Your task to perform on an android device: allow notifications from all sites in the chrome app Image 0: 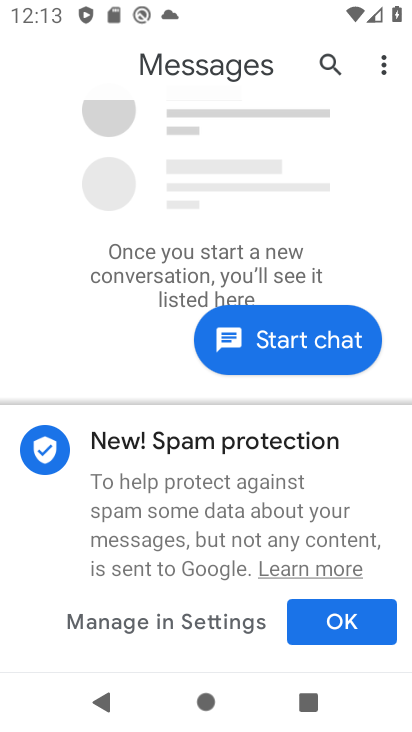
Step 0: press home button
Your task to perform on an android device: allow notifications from all sites in the chrome app Image 1: 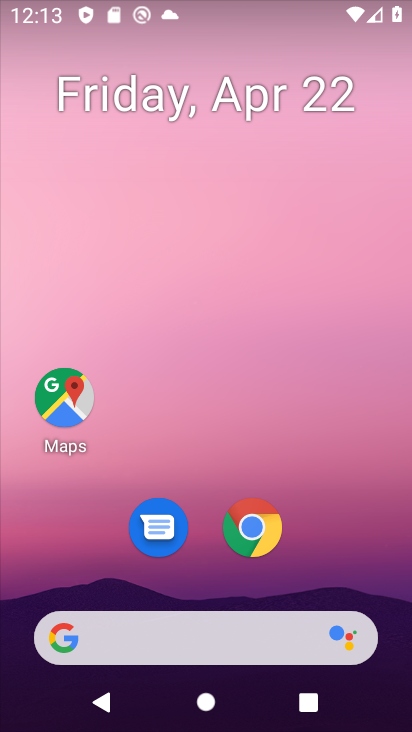
Step 1: click (264, 525)
Your task to perform on an android device: allow notifications from all sites in the chrome app Image 2: 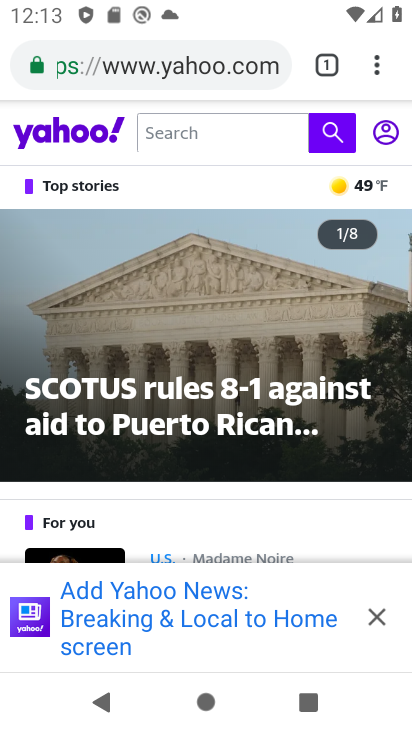
Step 2: click (373, 69)
Your task to perform on an android device: allow notifications from all sites in the chrome app Image 3: 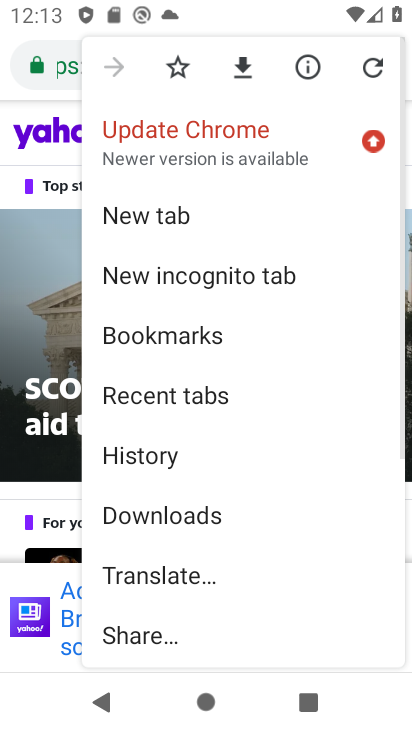
Step 3: drag from (237, 542) to (260, 244)
Your task to perform on an android device: allow notifications from all sites in the chrome app Image 4: 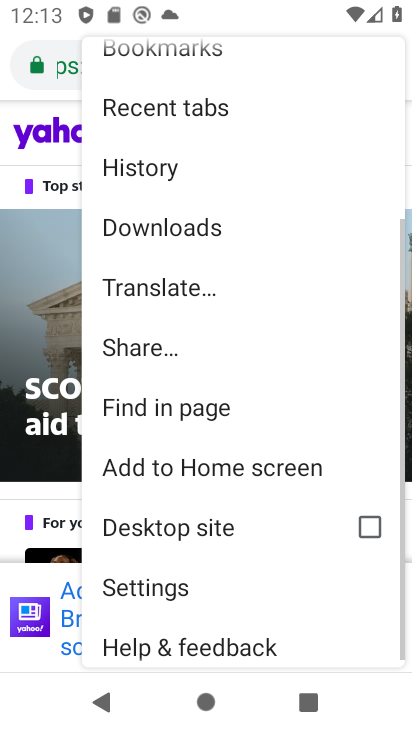
Step 4: drag from (247, 418) to (266, 198)
Your task to perform on an android device: allow notifications from all sites in the chrome app Image 5: 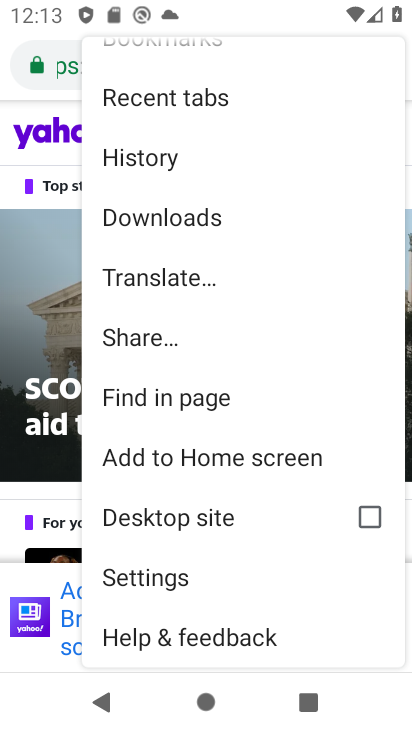
Step 5: click (166, 581)
Your task to perform on an android device: allow notifications from all sites in the chrome app Image 6: 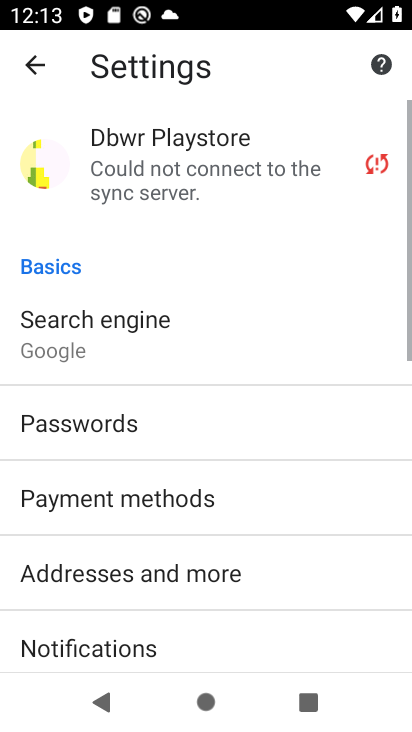
Step 6: drag from (201, 512) to (240, 222)
Your task to perform on an android device: allow notifications from all sites in the chrome app Image 7: 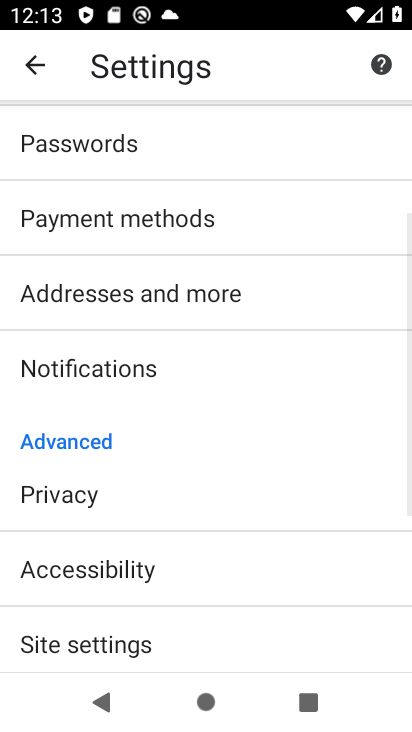
Step 7: drag from (137, 587) to (178, 358)
Your task to perform on an android device: allow notifications from all sites in the chrome app Image 8: 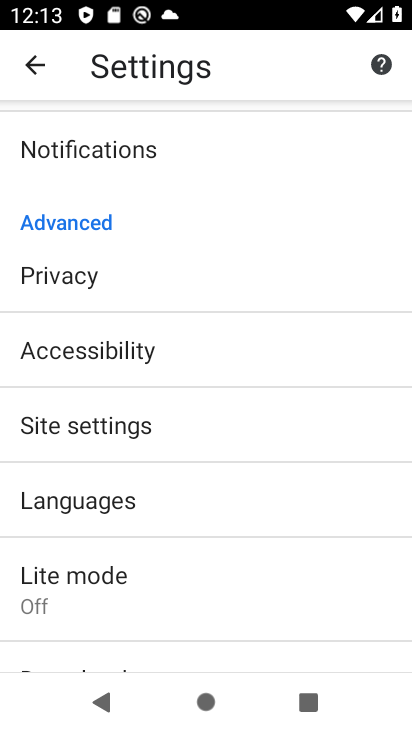
Step 8: click (136, 440)
Your task to perform on an android device: allow notifications from all sites in the chrome app Image 9: 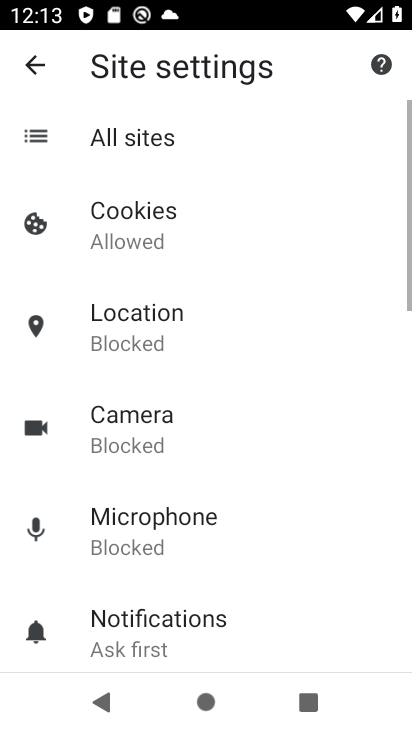
Step 9: click (152, 140)
Your task to perform on an android device: allow notifications from all sites in the chrome app Image 10: 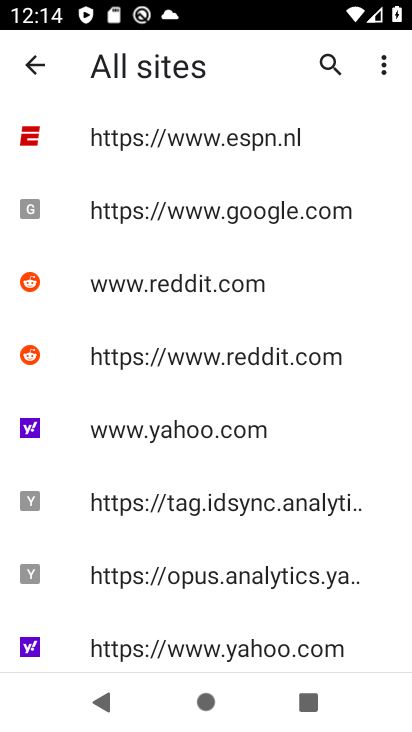
Step 10: click (217, 219)
Your task to perform on an android device: allow notifications from all sites in the chrome app Image 11: 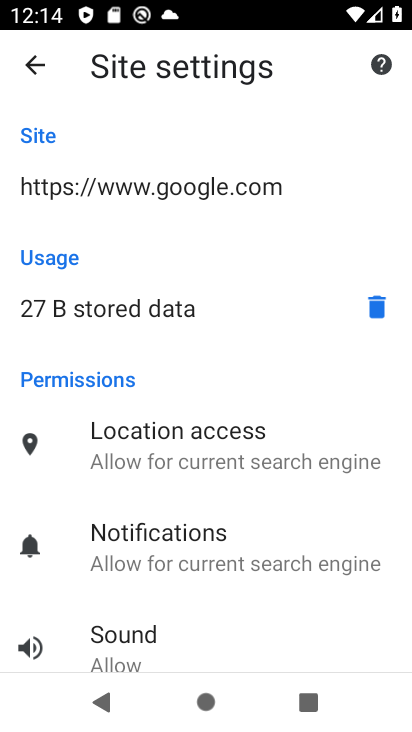
Step 11: click (204, 553)
Your task to perform on an android device: allow notifications from all sites in the chrome app Image 12: 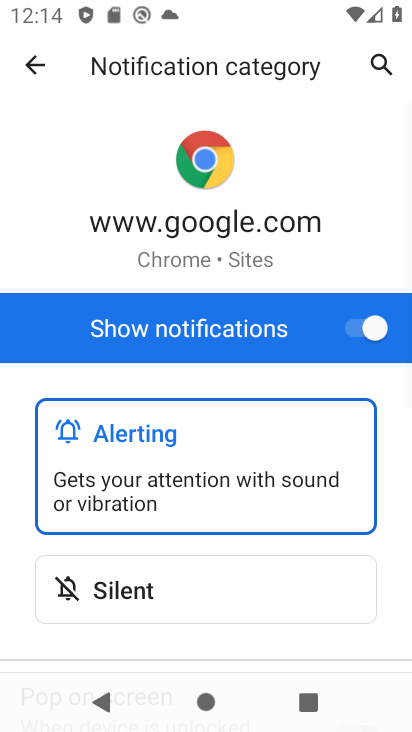
Step 12: task complete